Your task to perform on an android device: Open Google Image 0: 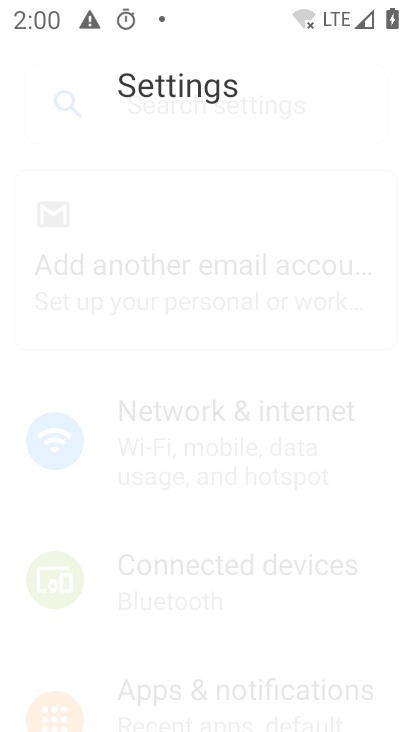
Step 0: click (51, 412)
Your task to perform on an android device: Open Google Image 1: 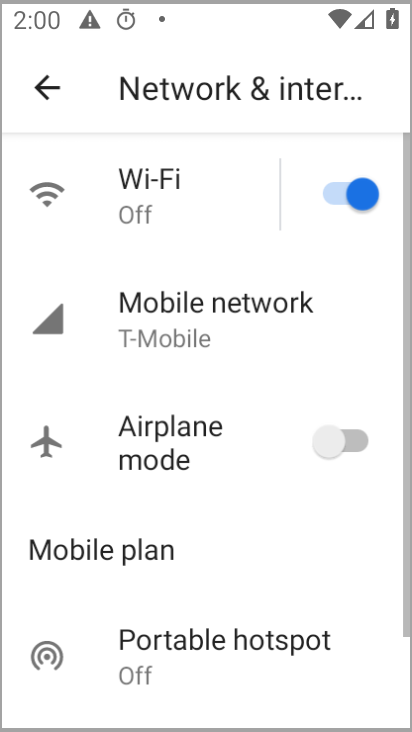
Step 1: press home button
Your task to perform on an android device: Open Google Image 2: 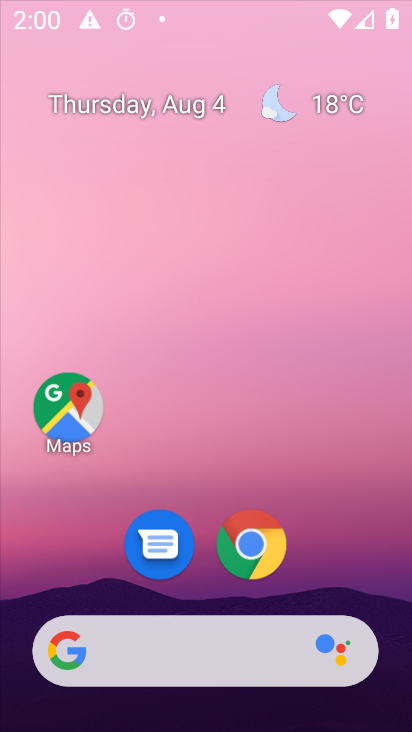
Step 2: press home button
Your task to perform on an android device: Open Google Image 3: 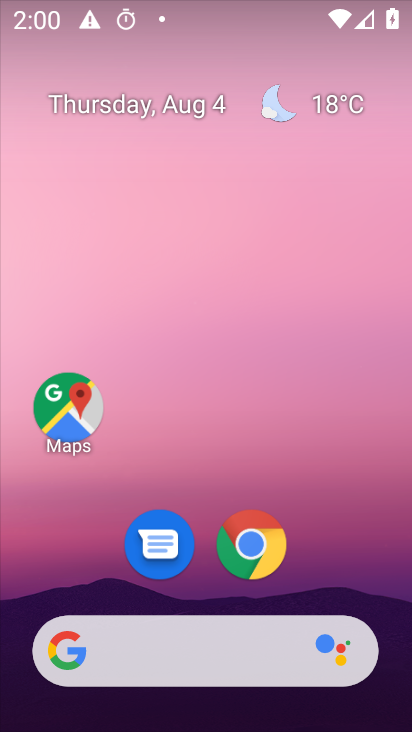
Step 3: drag from (380, 671) to (319, 125)
Your task to perform on an android device: Open Google Image 4: 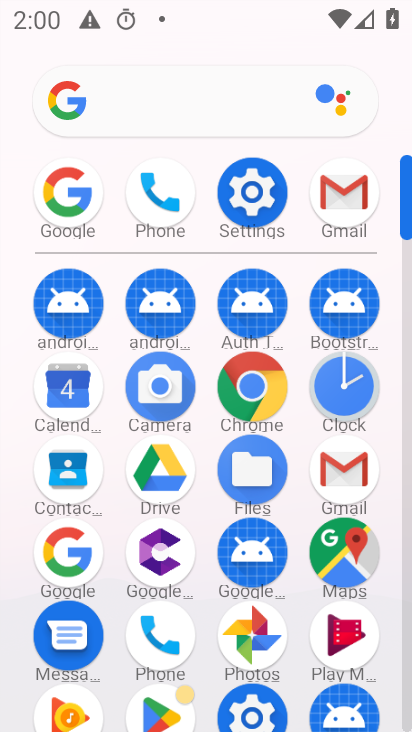
Step 4: click (52, 548)
Your task to perform on an android device: Open Google Image 5: 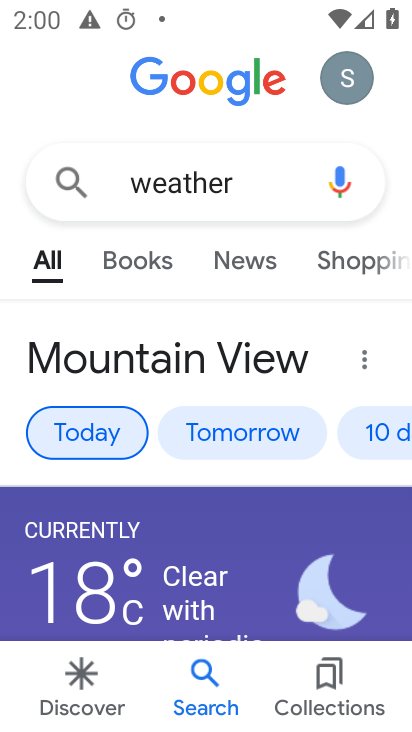
Step 5: task complete